Your task to perform on an android device: turn off translation in the chrome app Image 0: 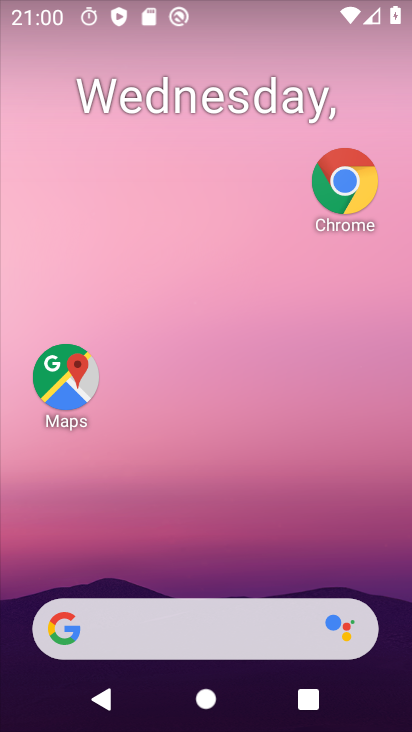
Step 0: drag from (239, 620) to (321, 121)
Your task to perform on an android device: turn off translation in the chrome app Image 1: 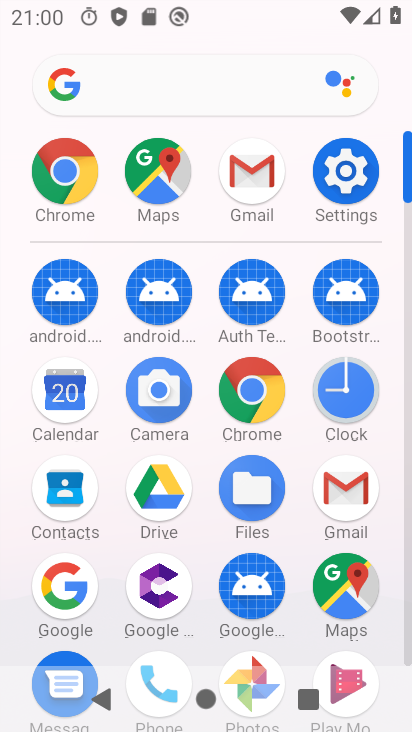
Step 1: click (69, 185)
Your task to perform on an android device: turn off translation in the chrome app Image 2: 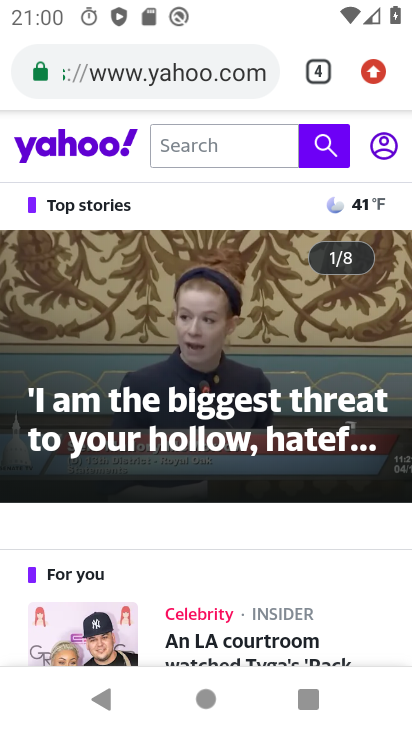
Step 2: click (370, 78)
Your task to perform on an android device: turn off translation in the chrome app Image 3: 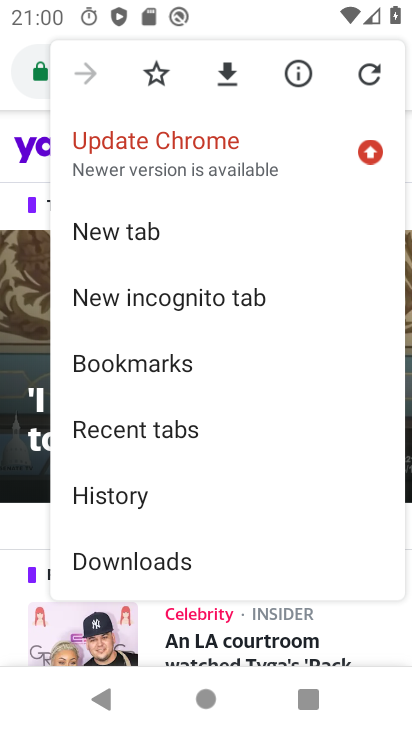
Step 3: drag from (188, 503) to (207, 250)
Your task to perform on an android device: turn off translation in the chrome app Image 4: 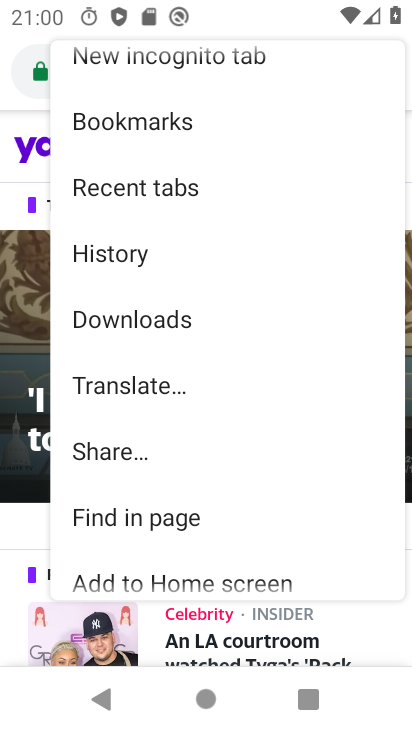
Step 4: drag from (178, 413) to (201, 245)
Your task to perform on an android device: turn off translation in the chrome app Image 5: 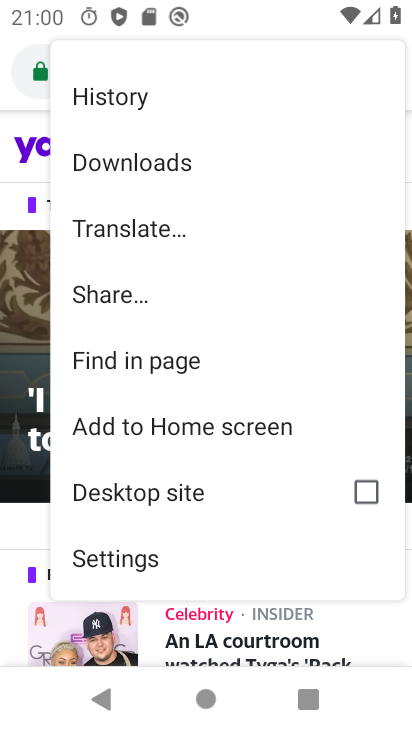
Step 5: click (106, 544)
Your task to perform on an android device: turn off translation in the chrome app Image 6: 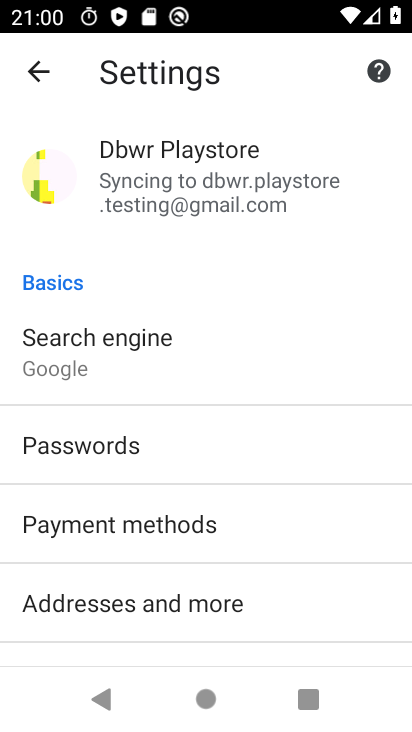
Step 6: drag from (106, 544) to (162, 243)
Your task to perform on an android device: turn off translation in the chrome app Image 7: 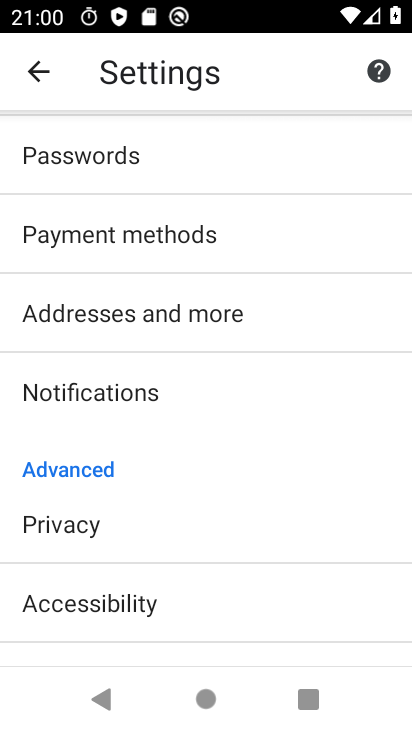
Step 7: drag from (126, 496) to (184, 295)
Your task to perform on an android device: turn off translation in the chrome app Image 8: 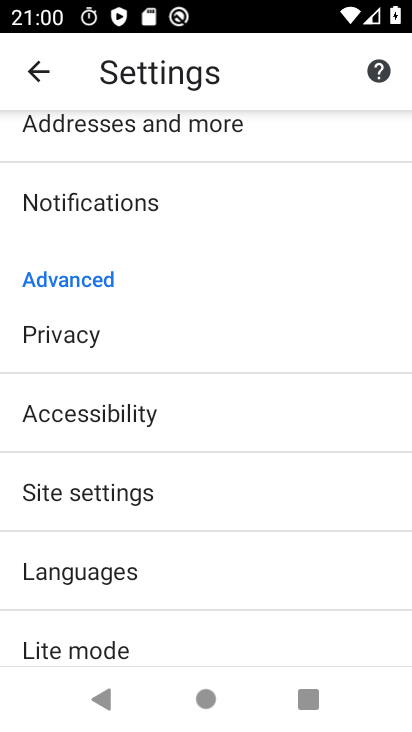
Step 8: click (56, 568)
Your task to perform on an android device: turn off translation in the chrome app Image 9: 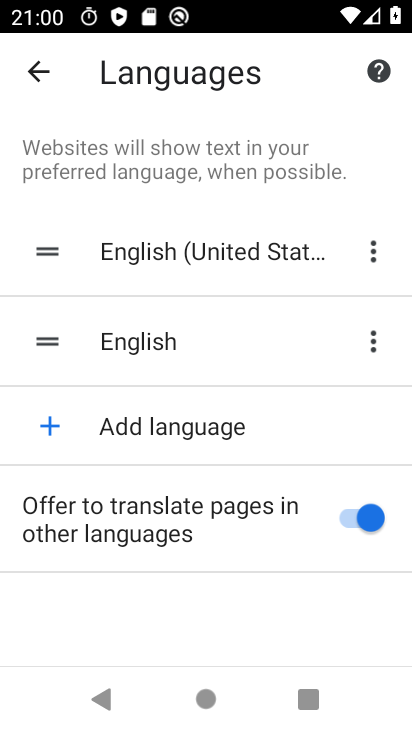
Step 9: click (182, 508)
Your task to perform on an android device: turn off translation in the chrome app Image 10: 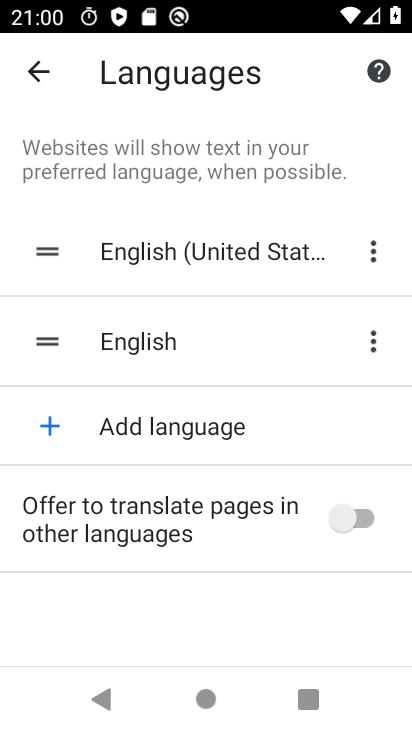
Step 10: task complete